Your task to perform on an android device: What's on my calendar tomorrow? Image 0: 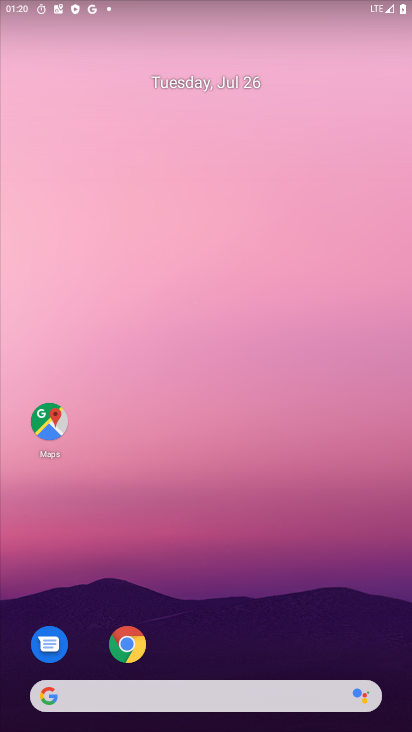
Step 0: drag from (240, 671) to (241, 119)
Your task to perform on an android device: What's on my calendar tomorrow? Image 1: 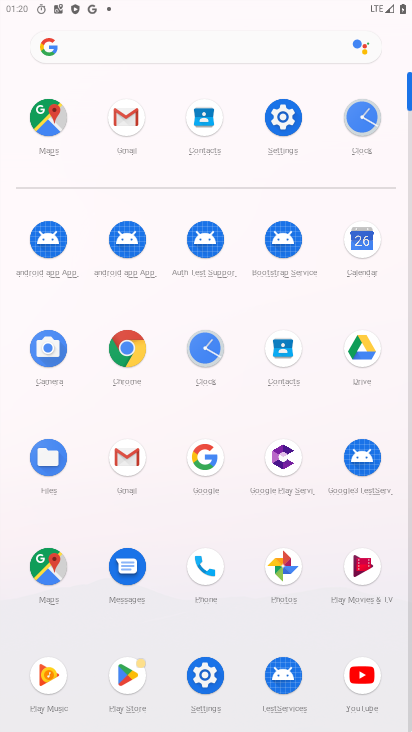
Step 1: click (357, 241)
Your task to perform on an android device: What's on my calendar tomorrow? Image 2: 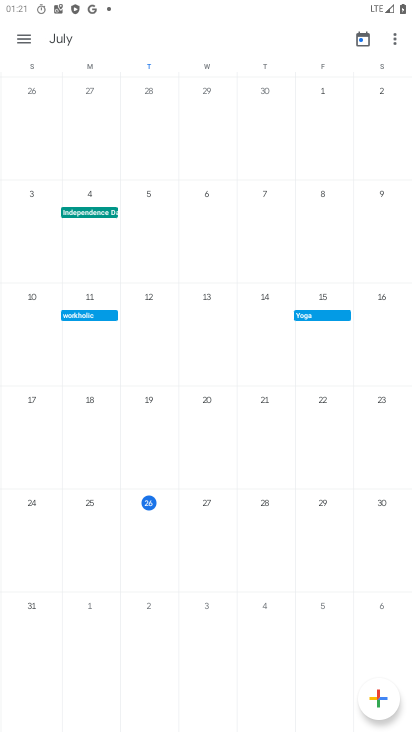
Step 2: click (203, 507)
Your task to perform on an android device: What's on my calendar tomorrow? Image 3: 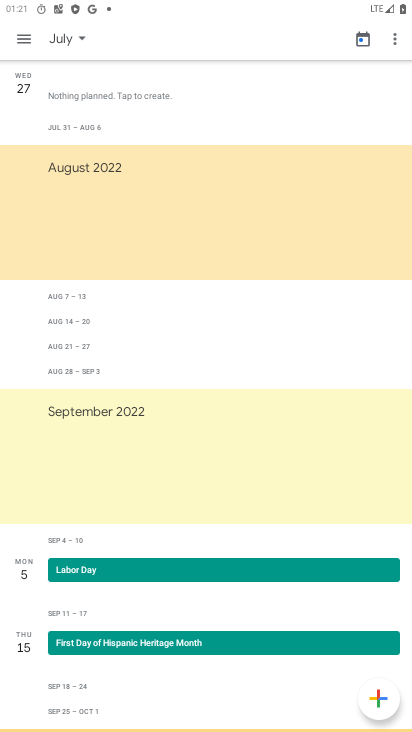
Step 3: click (120, 94)
Your task to perform on an android device: What's on my calendar tomorrow? Image 4: 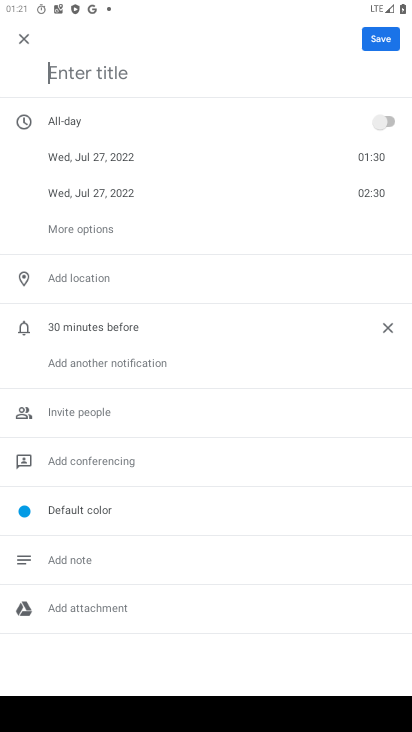
Step 4: task complete